Your task to perform on an android device: turn vacation reply on in the gmail app Image 0: 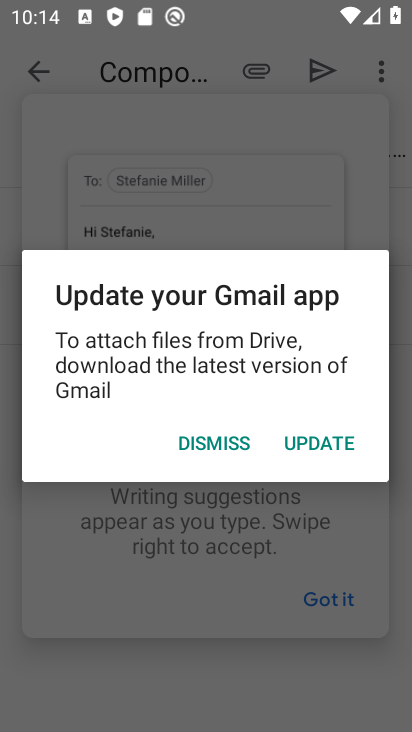
Step 0: press home button
Your task to perform on an android device: turn vacation reply on in the gmail app Image 1: 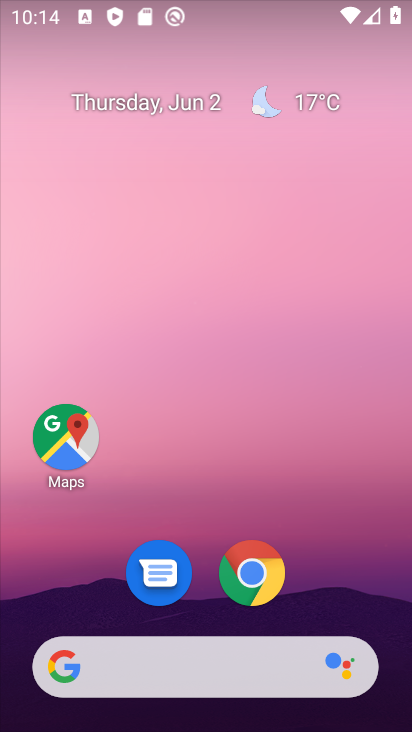
Step 1: drag from (350, 565) to (326, 0)
Your task to perform on an android device: turn vacation reply on in the gmail app Image 2: 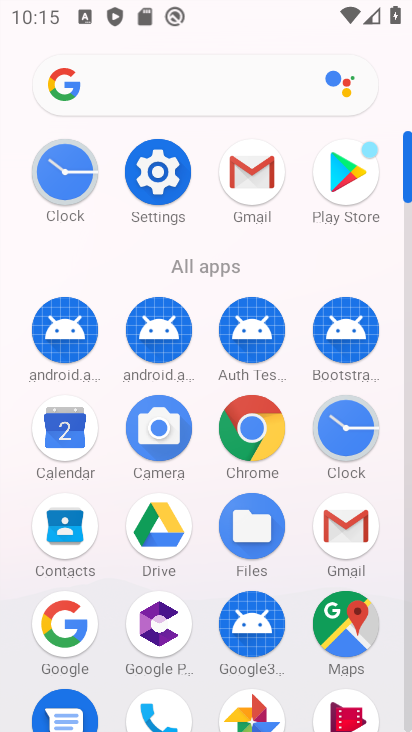
Step 2: click (258, 199)
Your task to perform on an android device: turn vacation reply on in the gmail app Image 3: 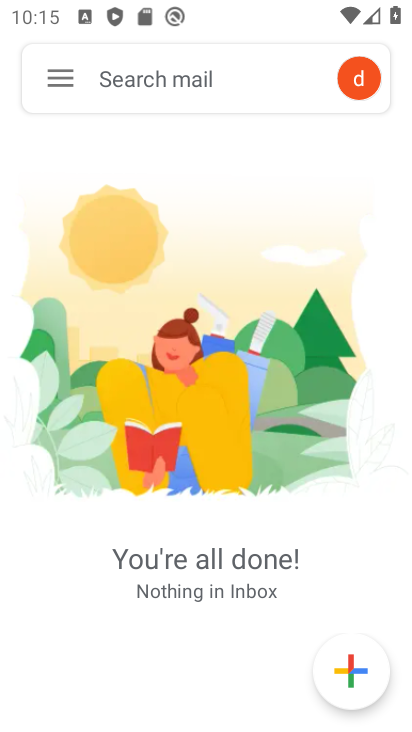
Step 3: click (64, 77)
Your task to perform on an android device: turn vacation reply on in the gmail app Image 4: 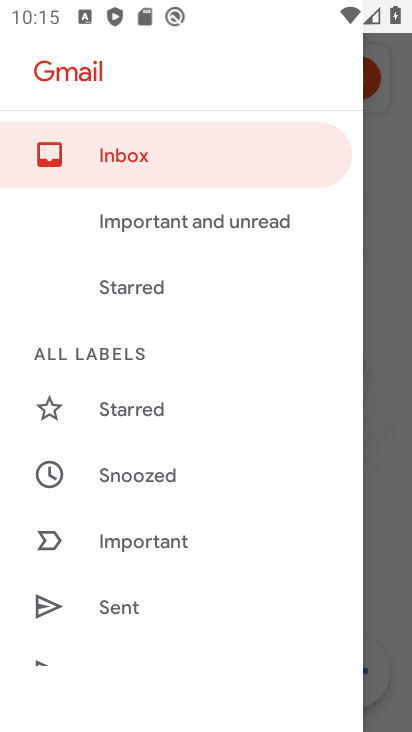
Step 4: drag from (170, 581) to (71, 15)
Your task to perform on an android device: turn vacation reply on in the gmail app Image 5: 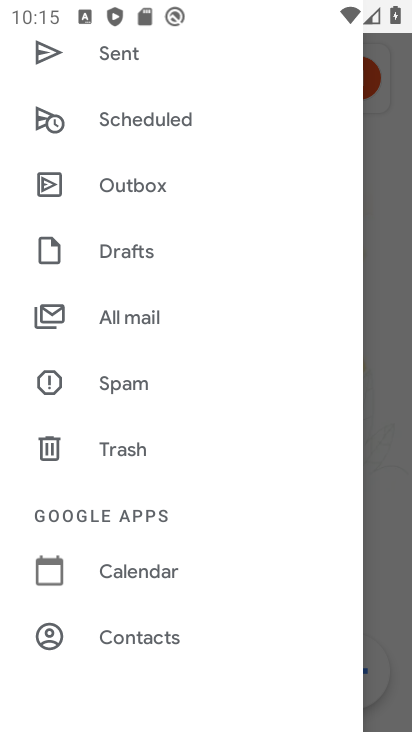
Step 5: drag from (197, 470) to (139, 0)
Your task to perform on an android device: turn vacation reply on in the gmail app Image 6: 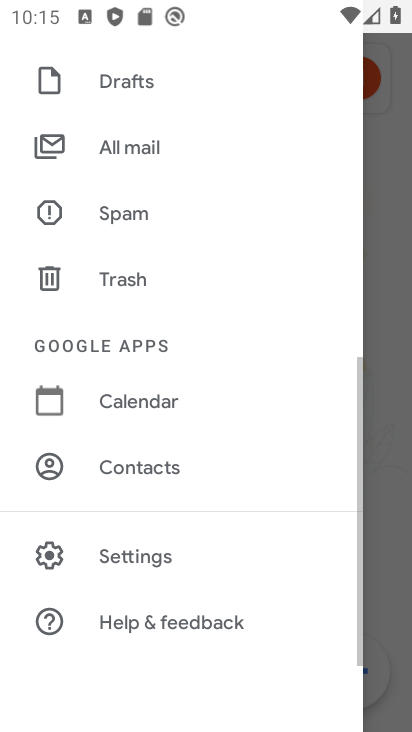
Step 6: click (154, 550)
Your task to perform on an android device: turn vacation reply on in the gmail app Image 7: 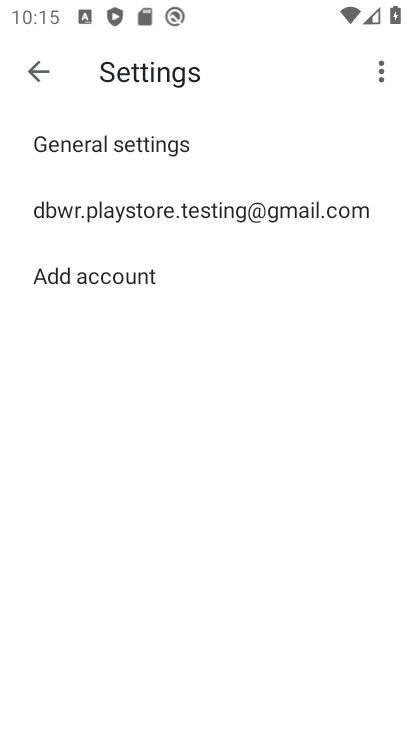
Step 7: click (43, 62)
Your task to perform on an android device: turn vacation reply on in the gmail app Image 8: 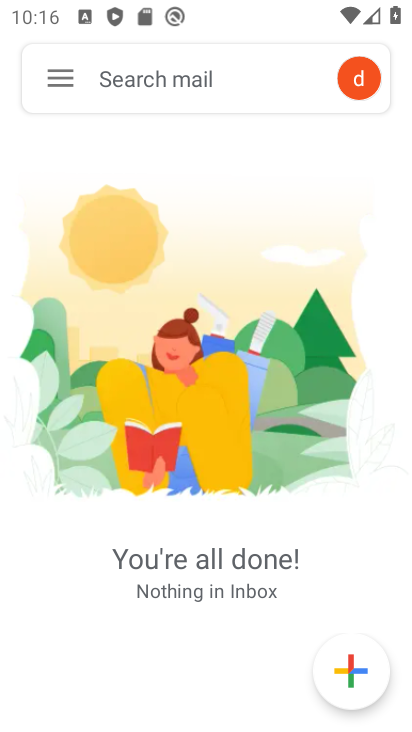
Step 8: click (53, 84)
Your task to perform on an android device: turn vacation reply on in the gmail app Image 9: 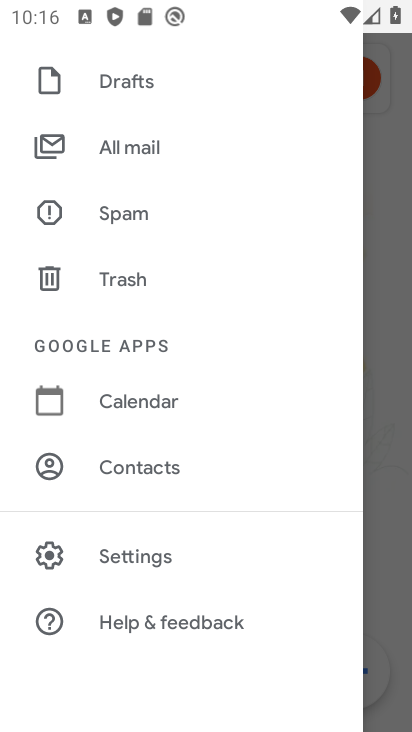
Step 9: click (134, 546)
Your task to perform on an android device: turn vacation reply on in the gmail app Image 10: 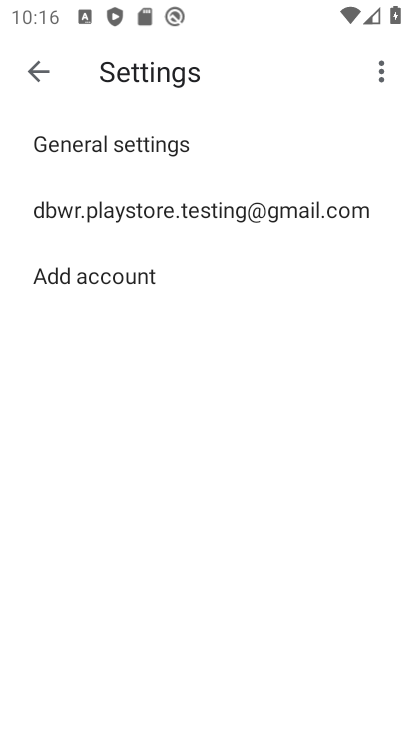
Step 10: click (85, 198)
Your task to perform on an android device: turn vacation reply on in the gmail app Image 11: 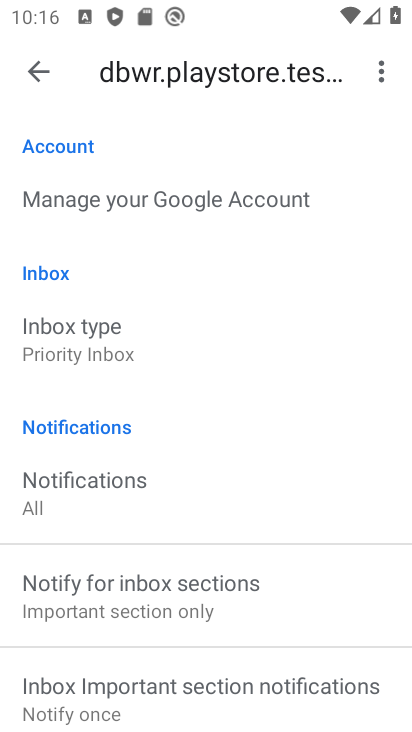
Step 11: drag from (228, 584) to (177, 107)
Your task to perform on an android device: turn vacation reply on in the gmail app Image 12: 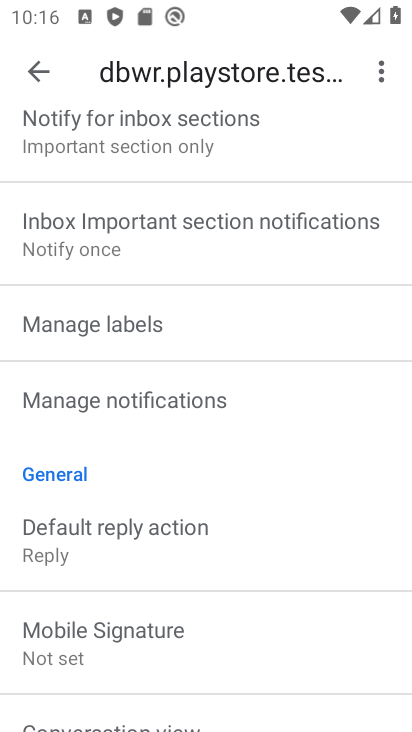
Step 12: drag from (209, 595) to (176, 28)
Your task to perform on an android device: turn vacation reply on in the gmail app Image 13: 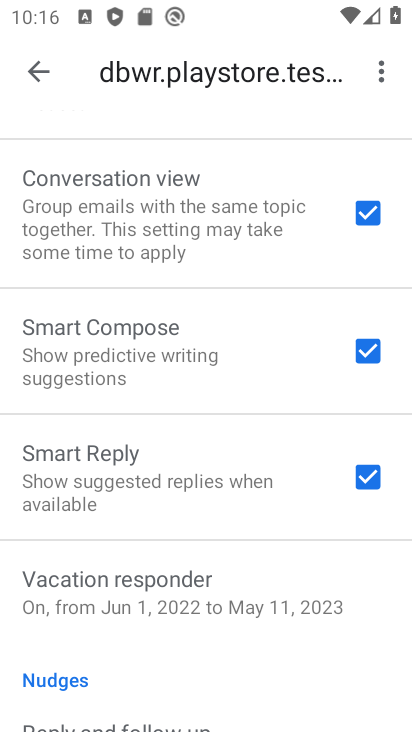
Step 13: drag from (226, 630) to (268, 112)
Your task to perform on an android device: turn vacation reply on in the gmail app Image 14: 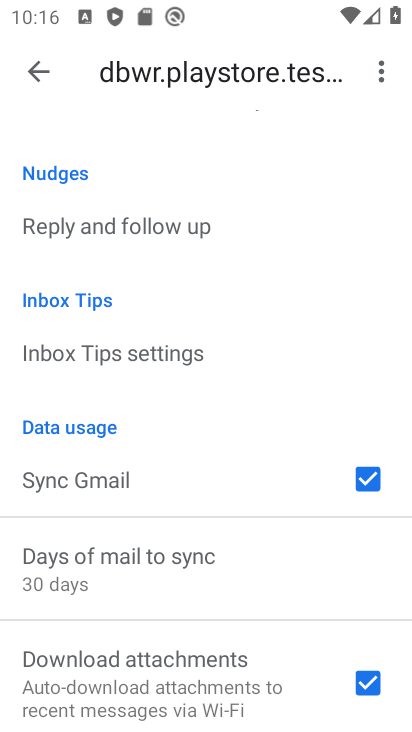
Step 14: drag from (240, 253) to (315, 625)
Your task to perform on an android device: turn vacation reply on in the gmail app Image 15: 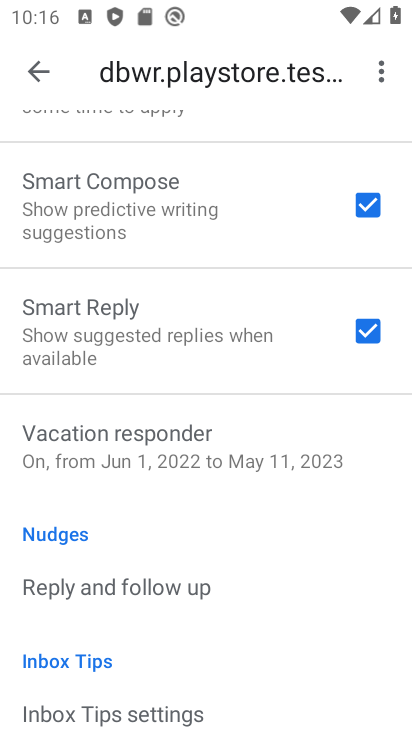
Step 15: click (159, 426)
Your task to perform on an android device: turn vacation reply on in the gmail app Image 16: 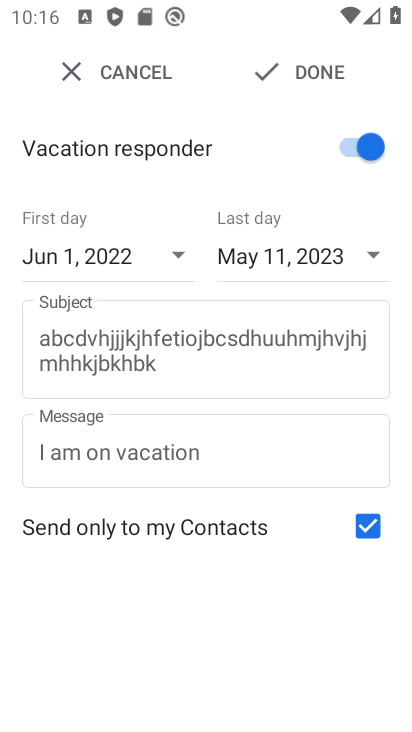
Step 16: task complete